Your task to perform on an android device: Is it going to rain this weekend? Image 0: 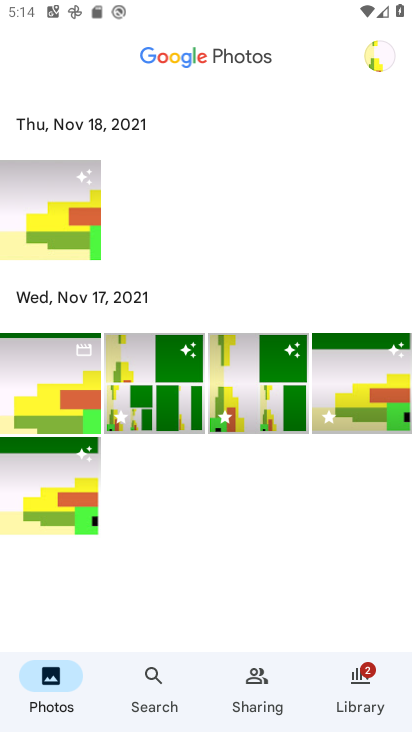
Step 0: press home button
Your task to perform on an android device: Is it going to rain this weekend? Image 1: 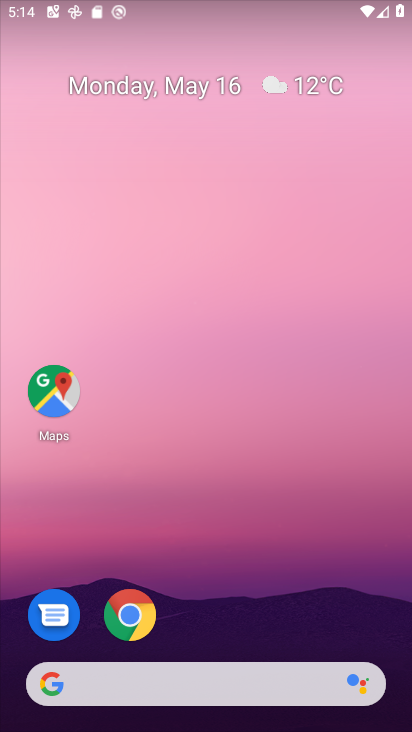
Step 1: drag from (226, 620) to (212, 81)
Your task to perform on an android device: Is it going to rain this weekend? Image 2: 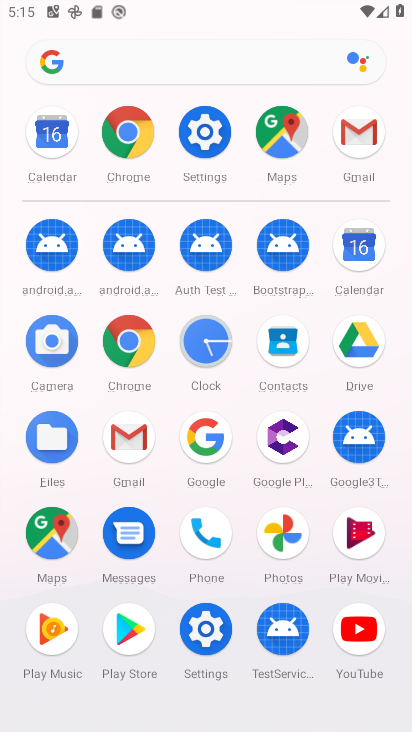
Step 2: click (369, 267)
Your task to perform on an android device: Is it going to rain this weekend? Image 3: 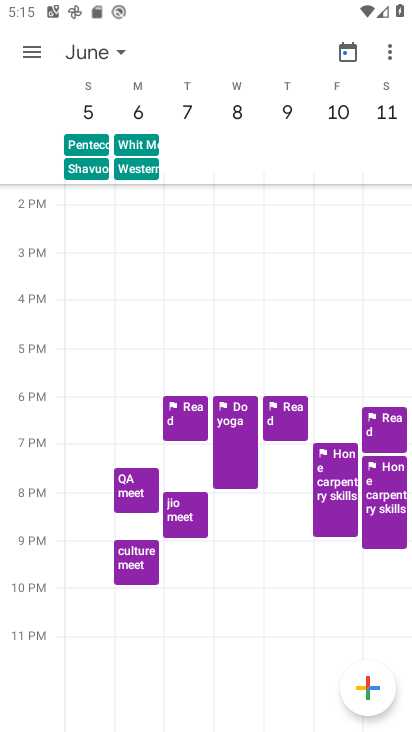
Step 3: click (96, 56)
Your task to perform on an android device: Is it going to rain this weekend? Image 4: 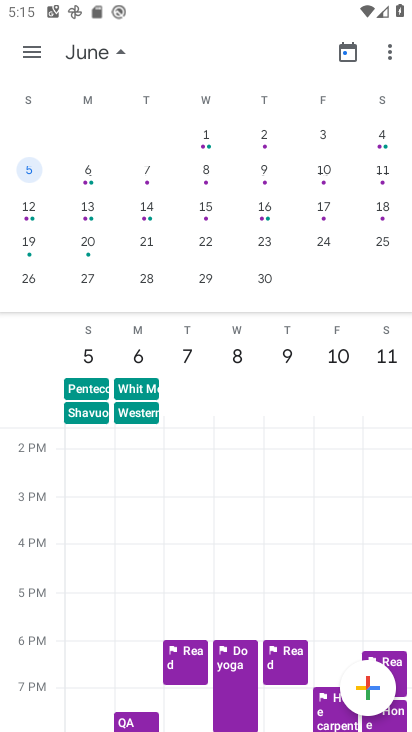
Step 4: drag from (63, 239) to (384, 234)
Your task to perform on an android device: Is it going to rain this weekend? Image 5: 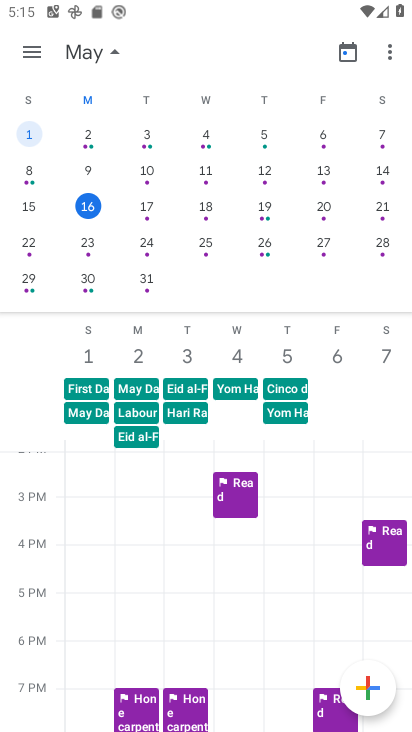
Step 5: click (25, 211)
Your task to perform on an android device: Is it going to rain this weekend? Image 6: 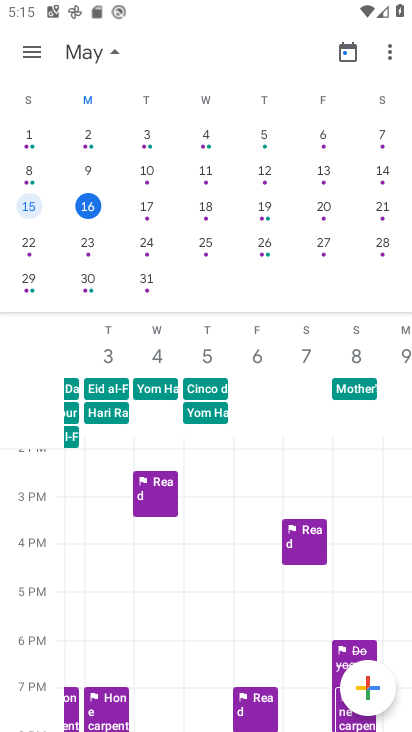
Step 6: click (25, 211)
Your task to perform on an android device: Is it going to rain this weekend? Image 7: 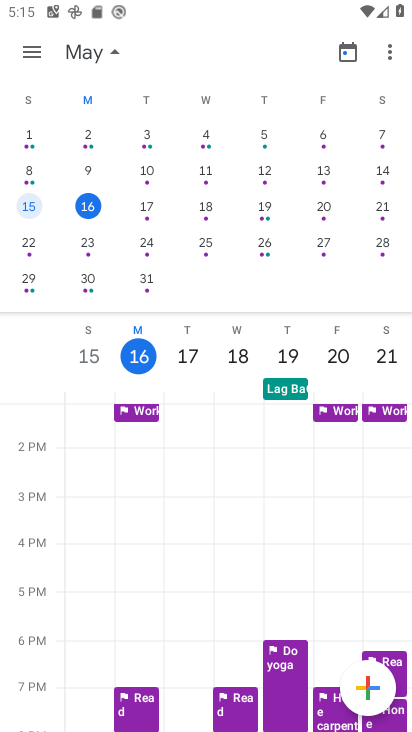
Step 7: task complete